Your task to perform on an android device: change timer sound Image 0: 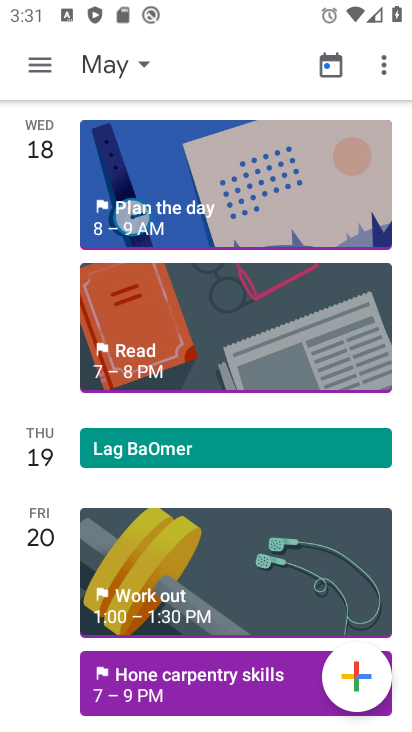
Step 0: drag from (266, 480) to (340, 258)
Your task to perform on an android device: change timer sound Image 1: 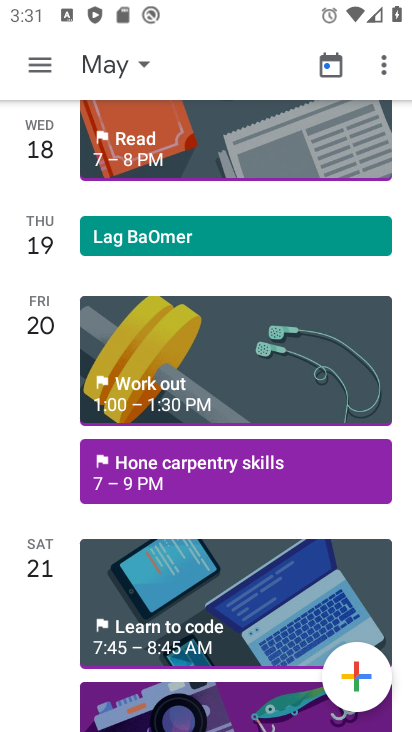
Step 1: press home button
Your task to perform on an android device: change timer sound Image 2: 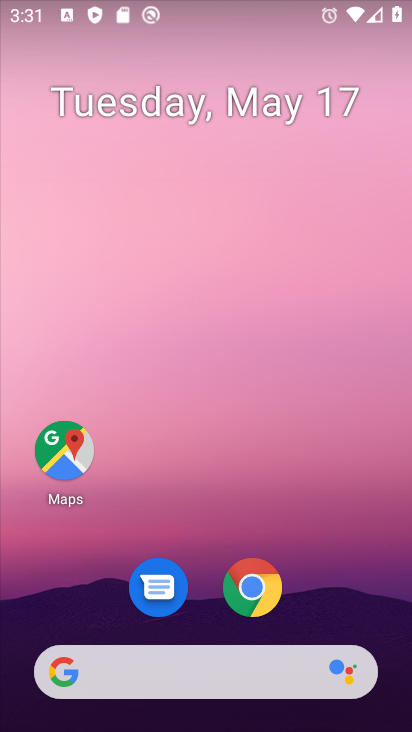
Step 2: drag from (216, 606) to (291, 157)
Your task to perform on an android device: change timer sound Image 3: 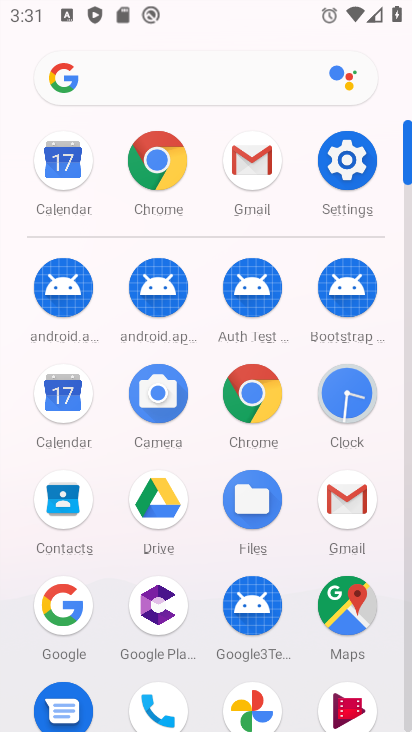
Step 3: click (333, 397)
Your task to perform on an android device: change timer sound Image 4: 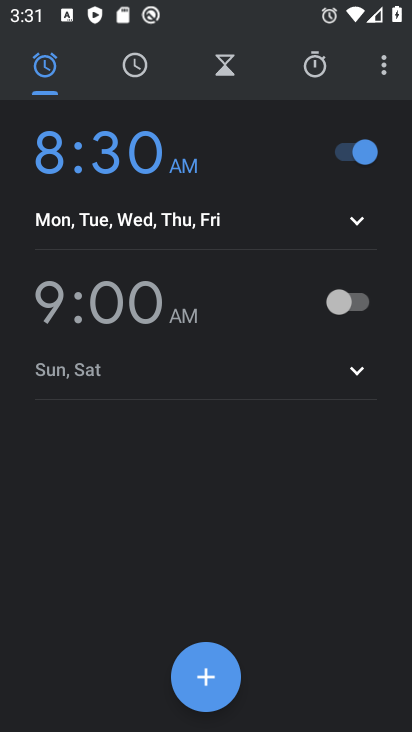
Step 4: click (374, 77)
Your task to perform on an android device: change timer sound Image 5: 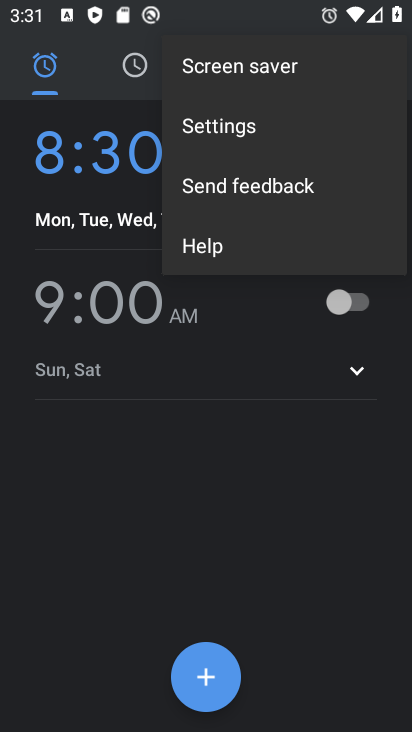
Step 5: click (248, 139)
Your task to perform on an android device: change timer sound Image 6: 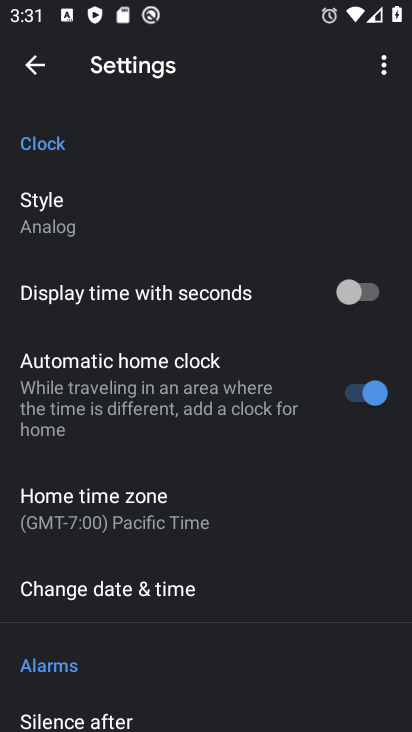
Step 6: drag from (193, 544) to (249, 103)
Your task to perform on an android device: change timer sound Image 7: 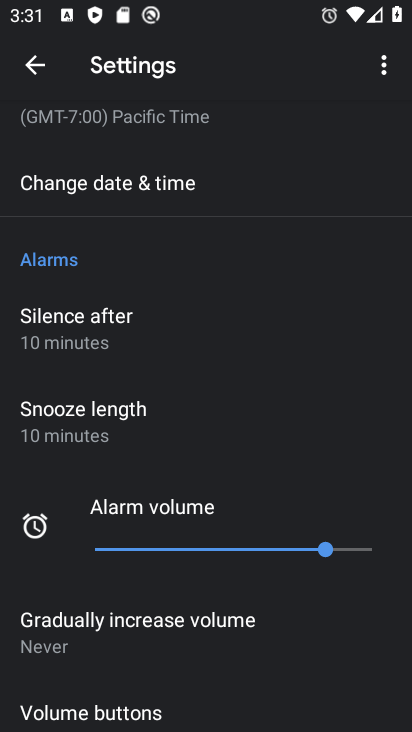
Step 7: drag from (223, 545) to (258, 243)
Your task to perform on an android device: change timer sound Image 8: 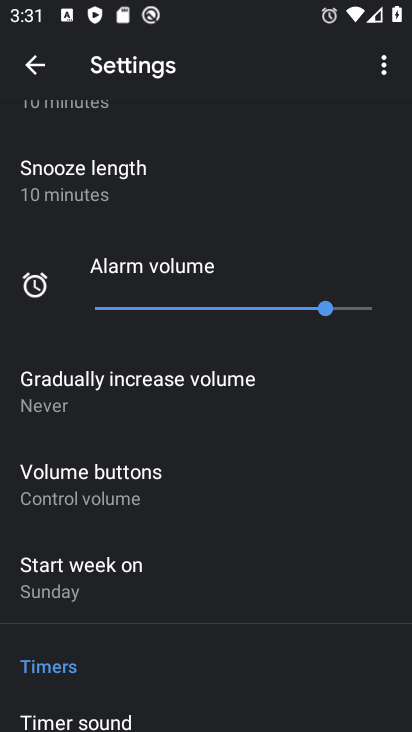
Step 8: drag from (179, 641) to (242, 185)
Your task to perform on an android device: change timer sound Image 9: 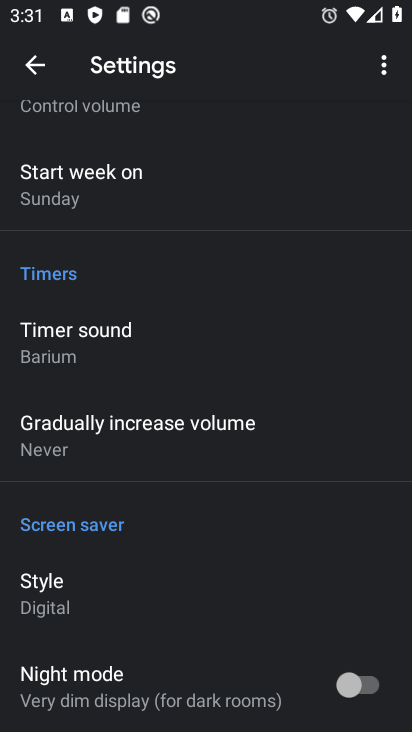
Step 9: drag from (132, 595) to (234, 128)
Your task to perform on an android device: change timer sound Image 10: 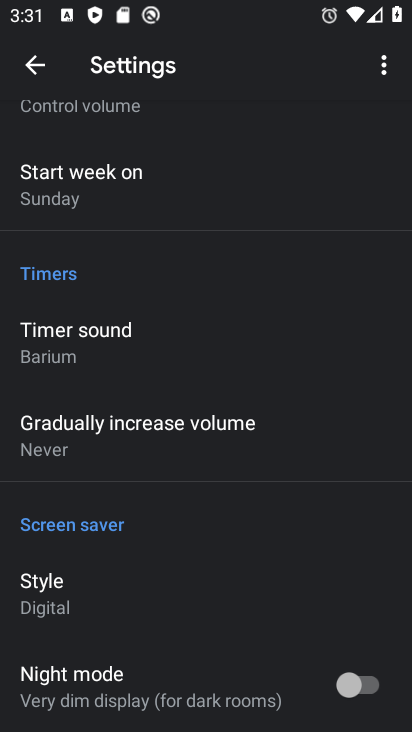
Step 10: click (116, 340)
Your task to perform on an android device: change timer sound Image 11: 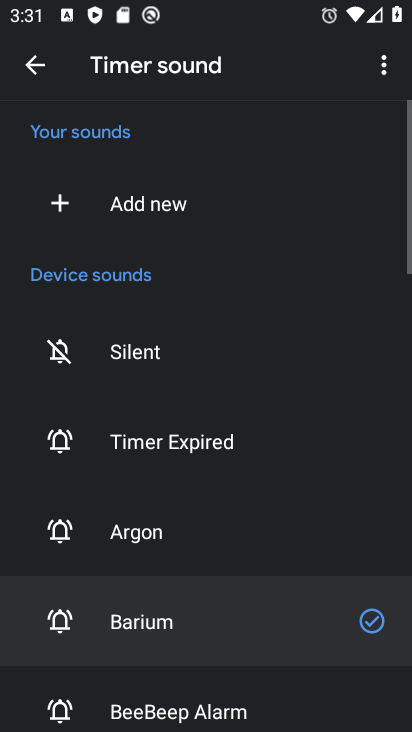
Step 11: click (235, 440)
Your task to perform on an android device: change timer sound Image 12: 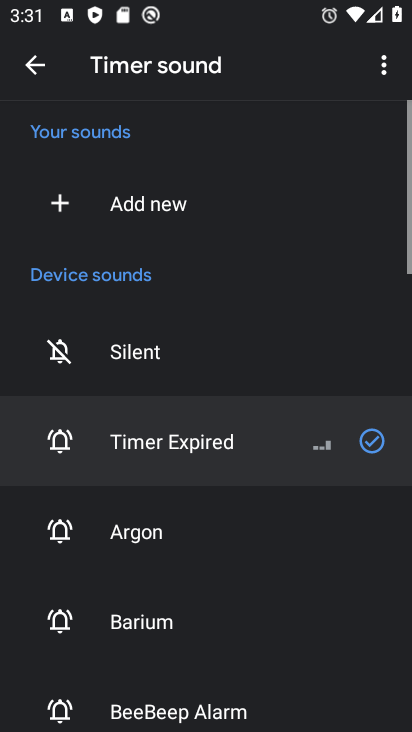
Step 12: task complete